Your task to perform on an android device: turn off javascript in the chrome app Image 0: 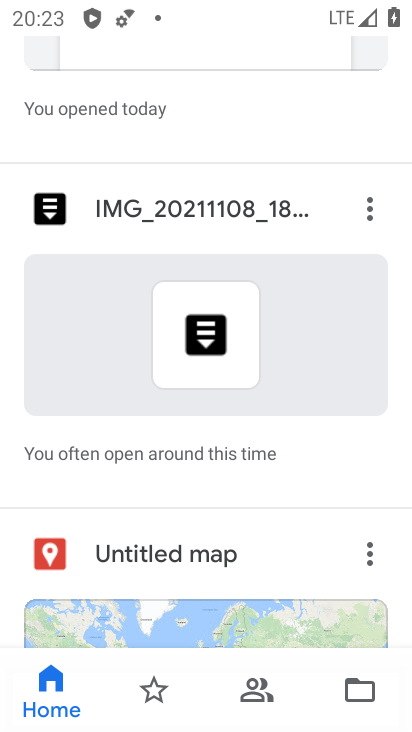
Step 0: drag from (222, 599) to (204, 111)
Your task to perform on an android device: turn off javascript in the chrome app Image 1: 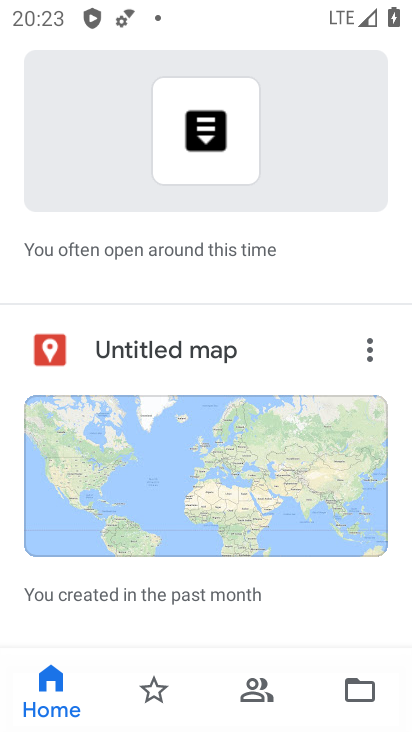
Step 1: press home button
Your task to perform on an android device: turn off javascript in the chrome app Image 2: 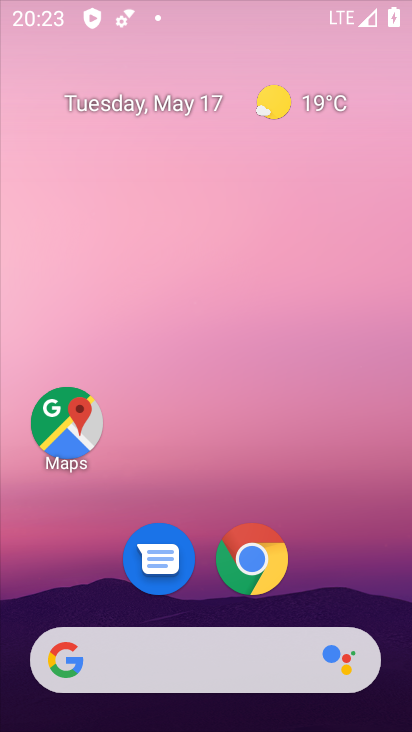
Step 2: drag from (211, 633) to (236, 167)
Your task to perform on an android device: turn off javascript in the chrome app Image 3: 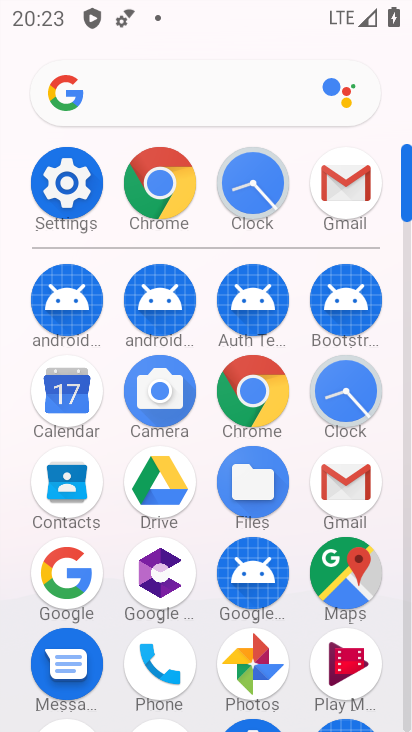
Step 3: click (47, 182)
Your task to perform on an android device: turn off javascript in the chrome app Image 4: 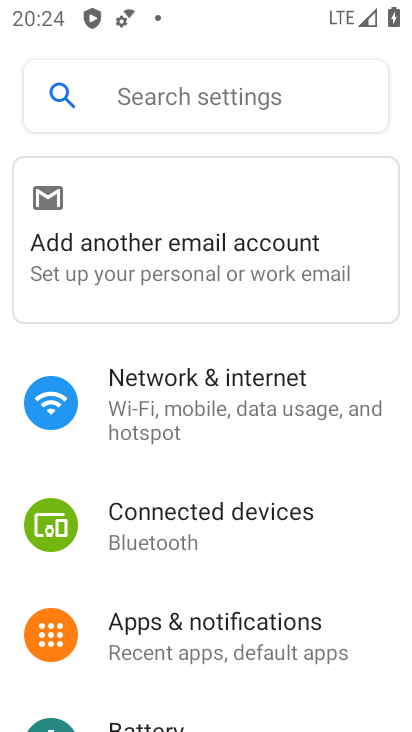
Step 4: drag from (222, 650) to (284, 176)
Your task to perform on an android device: turn off javascript in the chrome app Image 5: 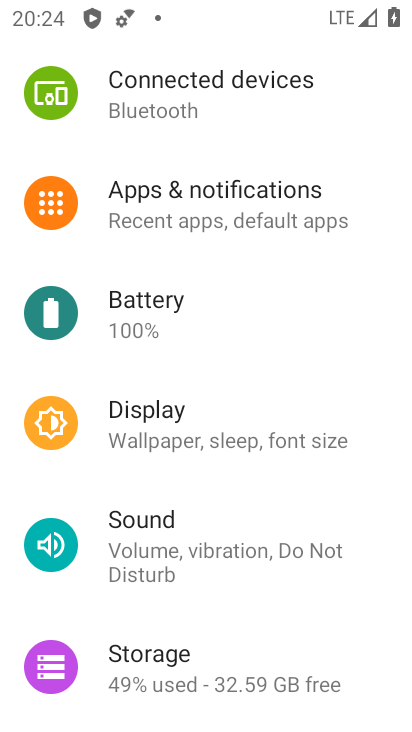
Step 5: drag from (251, 621) to (283, 176)
Your task to perform on an android device: turn off javascript in the chrome app Image 6: 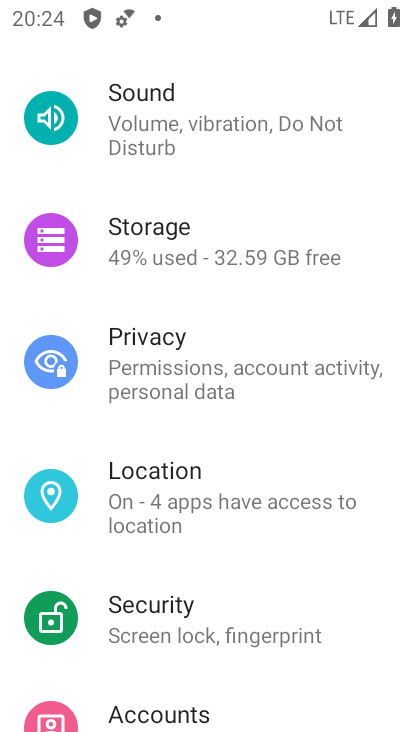
Step 6: drag from (189, 654) to (211, 239)
Your task to perform on an android device: turn off javascript in the chrome app Image 7: 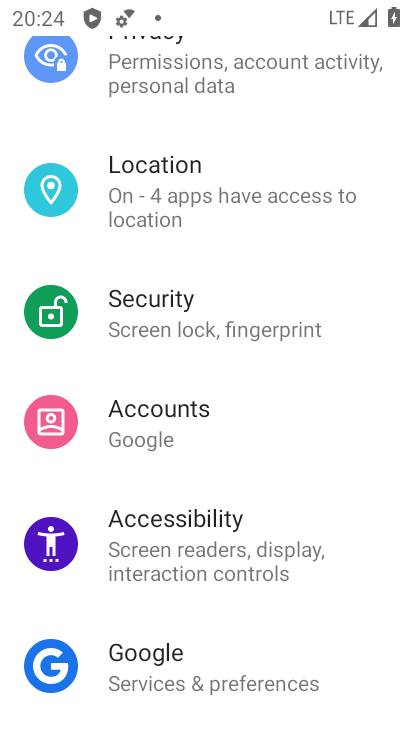
Step 7: press back button
Your task to perform on an android device: turn off javascript in the chrome app Image 8: 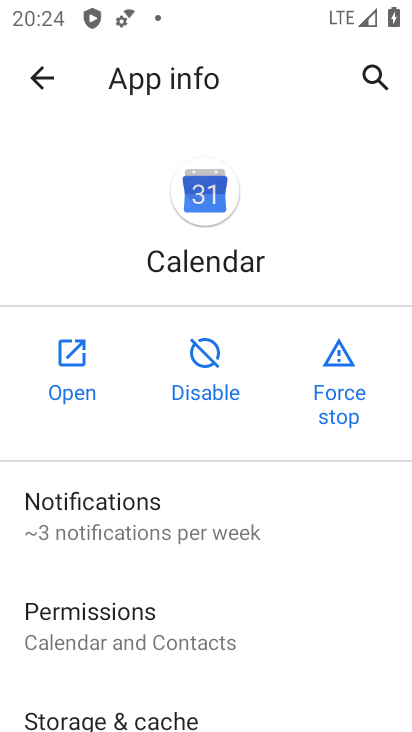
Step 8: press home button
Your task to perform on an android device: turn off javascript in the chrome app Image 9: 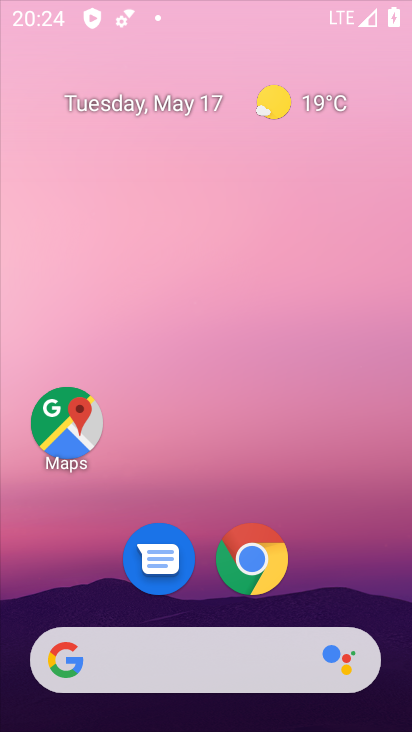
Step 9: drag from (268, 607) to (347, 183)
Your task to perform on an android device: turn off javascript in the chrome app Image 10: 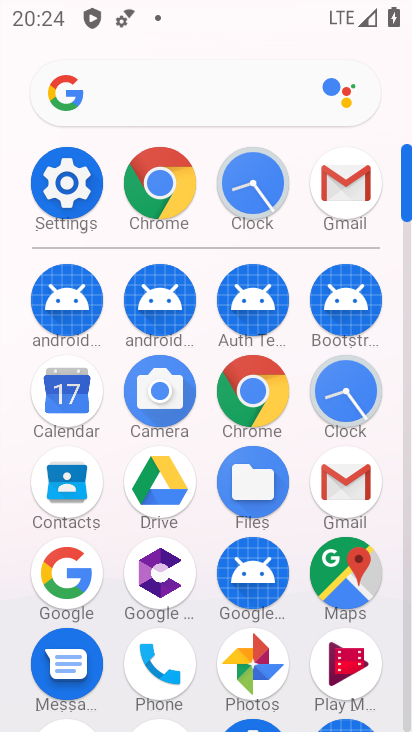
Step 10: click (169, 187)
Your task to perform on an android device: turn off javascript in the chrome app Image 11: 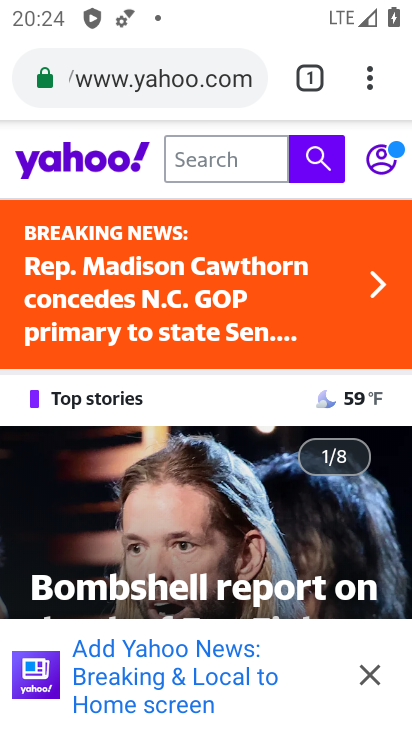
Step 11: click (365, 67)
Your task to perform on an android device: turn off javascript in the chrome app Image 12: 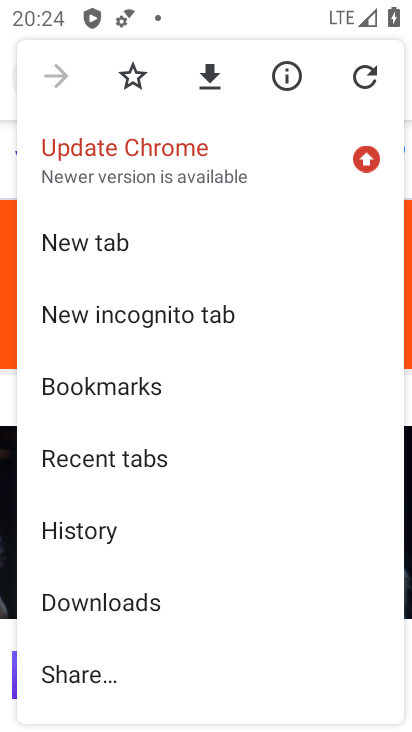
Step 12: drag from (185, 677) to (268, 148)
Your task to perform on an android device: turn off javascript in the chrome app Image 13: 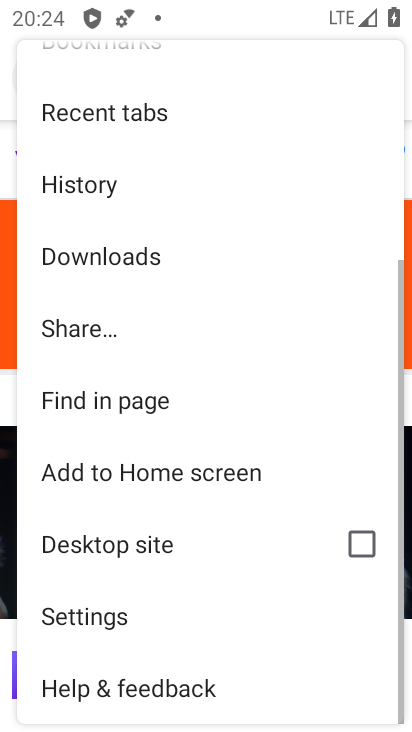
Step 13: click (120, 607)
Your task to perform on an android device: turn off javascript in the chrome app Image 14: 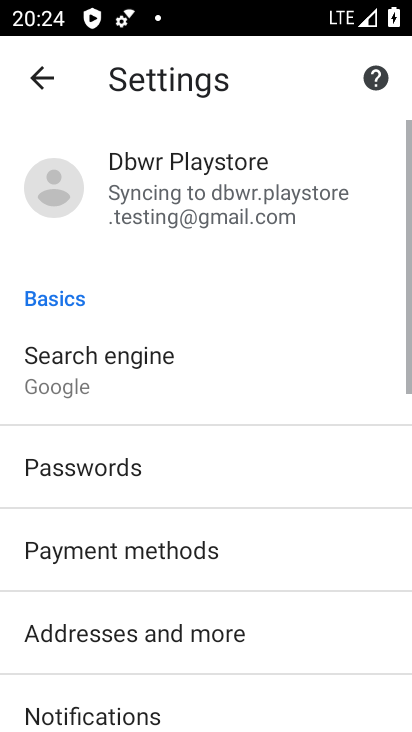
Step 14: drag from (172, 667) to (182, 230)
Your task to perform on an android device: turn off javascript in the chrome app Image 15: 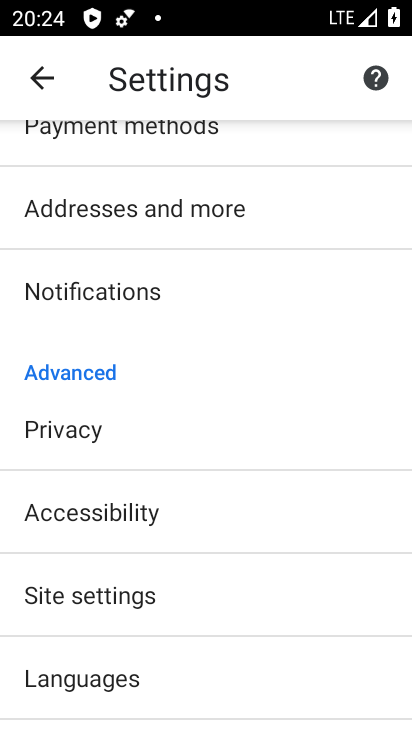
Step 15: click (124, 616)
Your task to perform on an android device: turn off javascript in the chrome app Image 16: 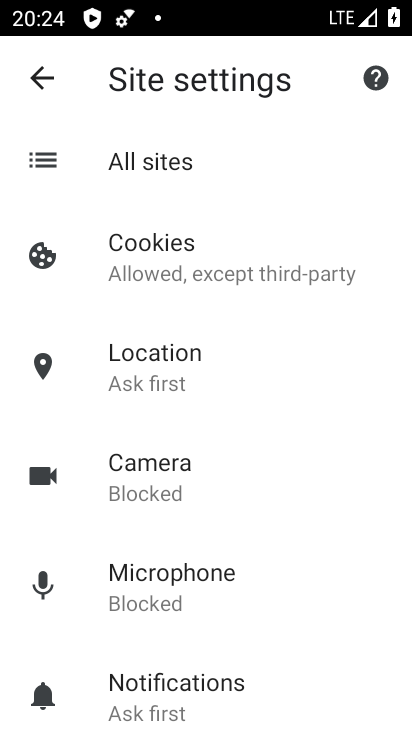
Step 16: drag from (184, 625) to (200, 135)
Your task to perform on an android device: turn off javascript in the chrome app Image 17: 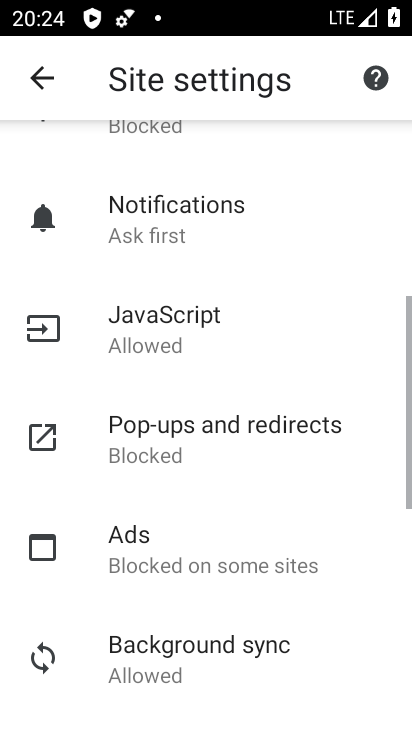
Step 17: click (145, 320)
Your task to perform on an android device: turn off javascript in the chrome app Image 18: 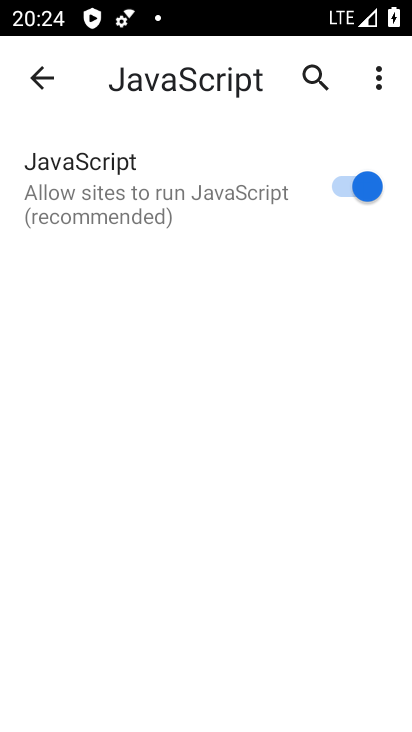
Step 18: click (367, 179)
Your task to perform on an android device: turn off javascript in the chrome app Image 19: 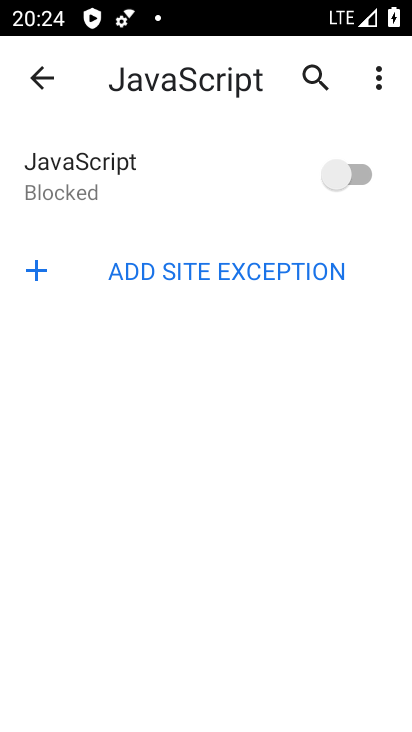
Step 19: task complete